Your task to perform on an android device: check battery use Image 0: 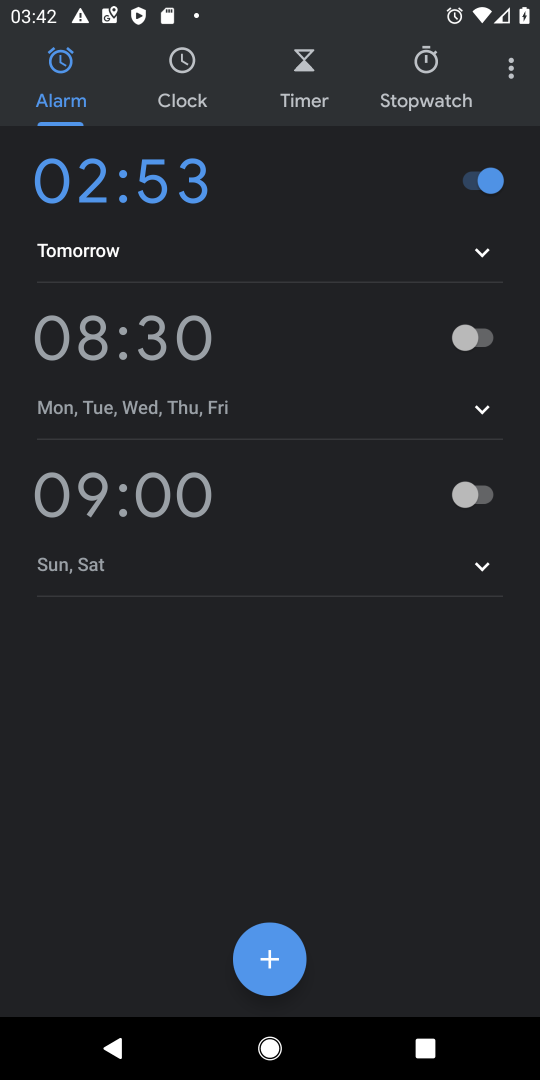
Step 0: press home button
Your task to perform on an android device: check battery use Image 1: 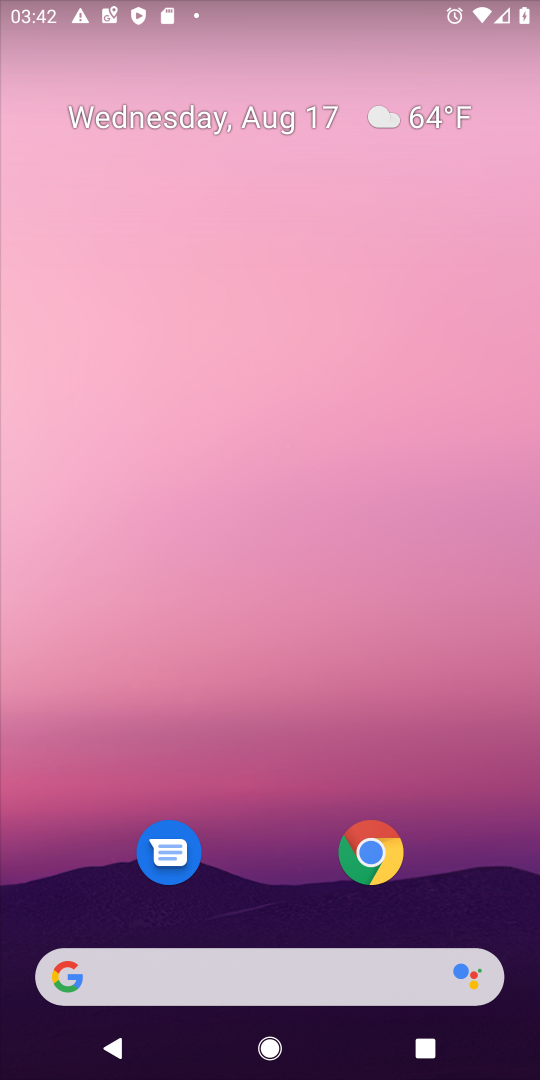
Step 1: drag from (284, 875) to (398, 140)
Your task to perform on an android device: check battery use Image 2: 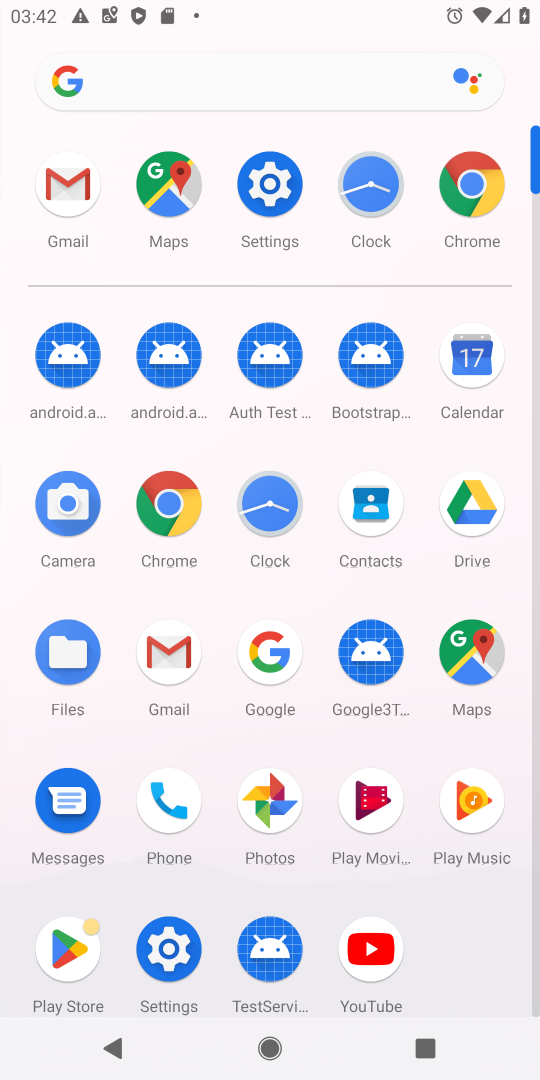
Step 2: click (169, 955)
Your task to perform on an android device: check battery use Image 3: 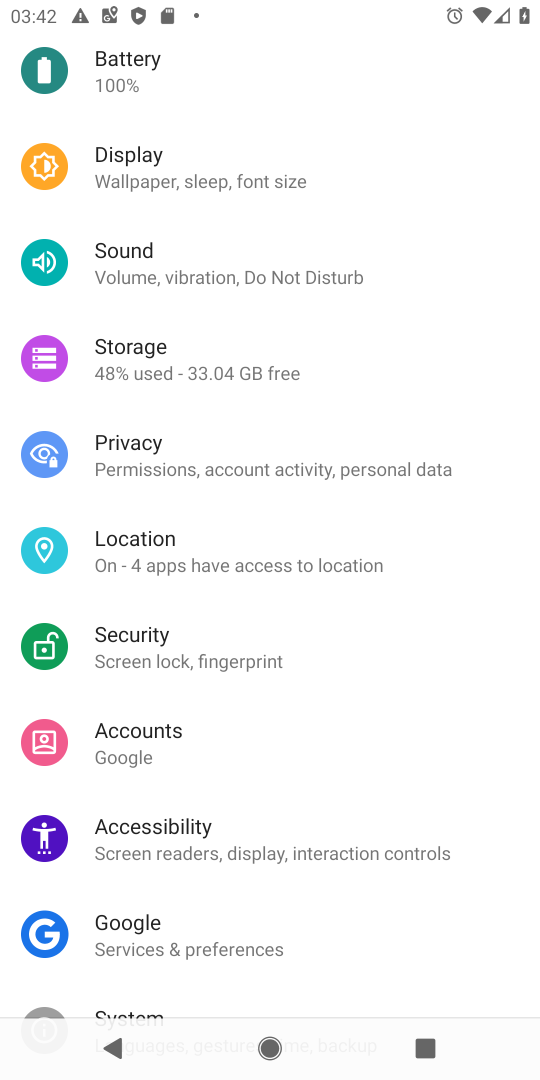
Step 3: drag from (228, 824) to (364, 880)
Your task to perform on an android device: check battery use Image 4: 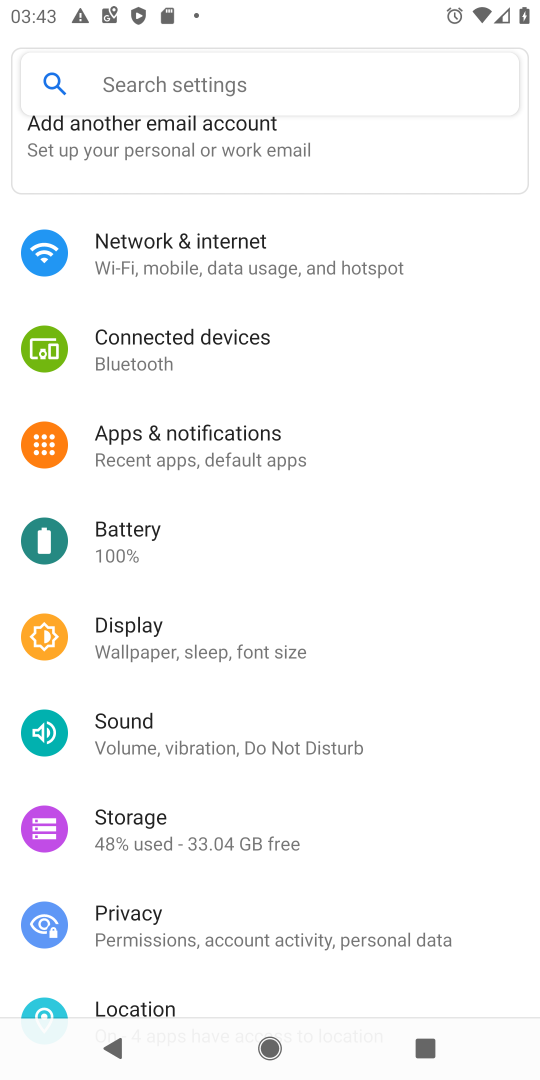
Step 4: drag from (354, 842) to (411, 328)
Your task to perform on an android device: check battery use Image 5: 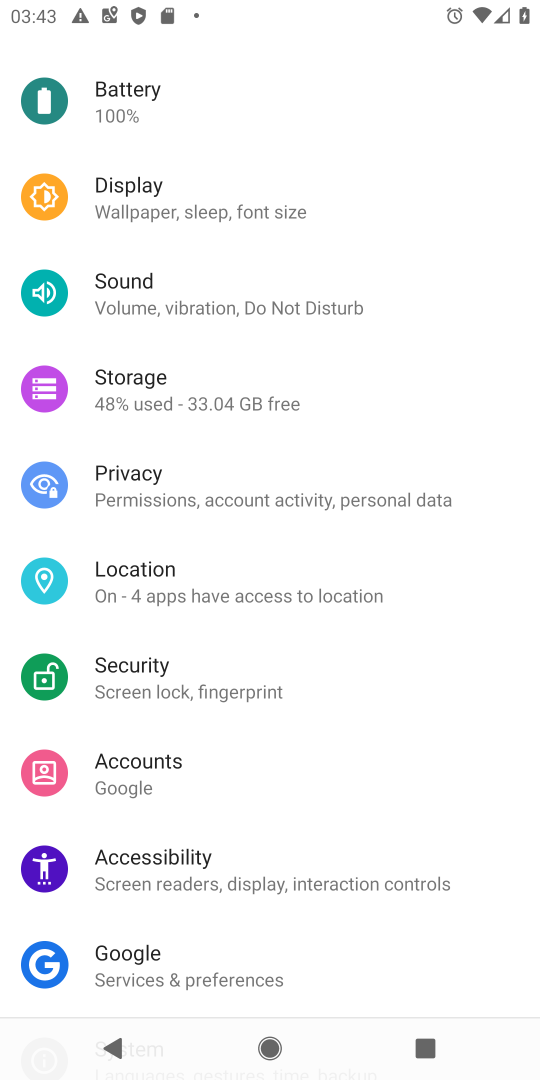
Step 5: drag from (274, 805) to (247, 919)
Your task to perform on an android device: check battery use Image 6: 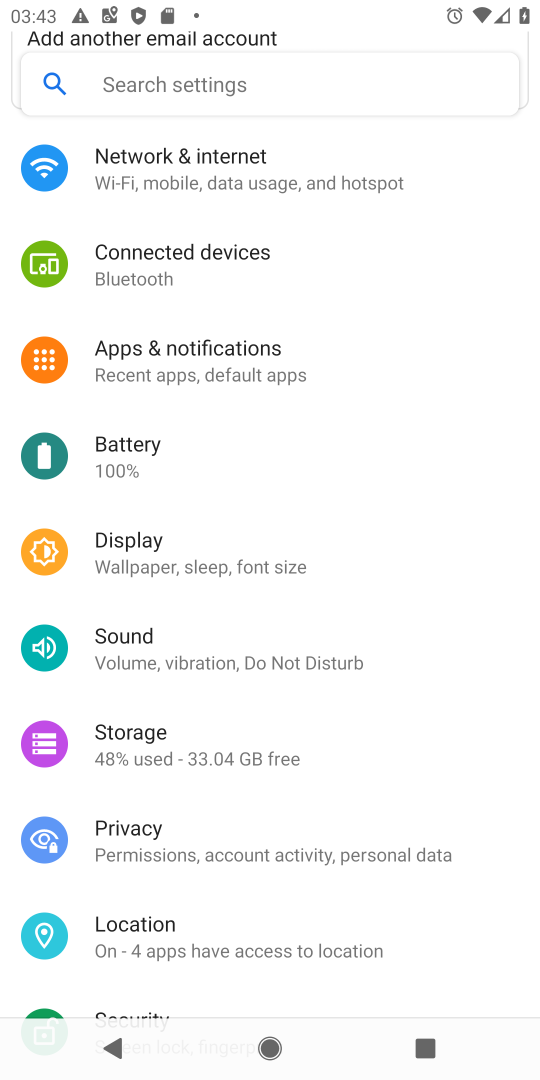
Step 6: drag from (339, 267) to (293, 545)
Your task to perform on an android device: check battery use Image 7: 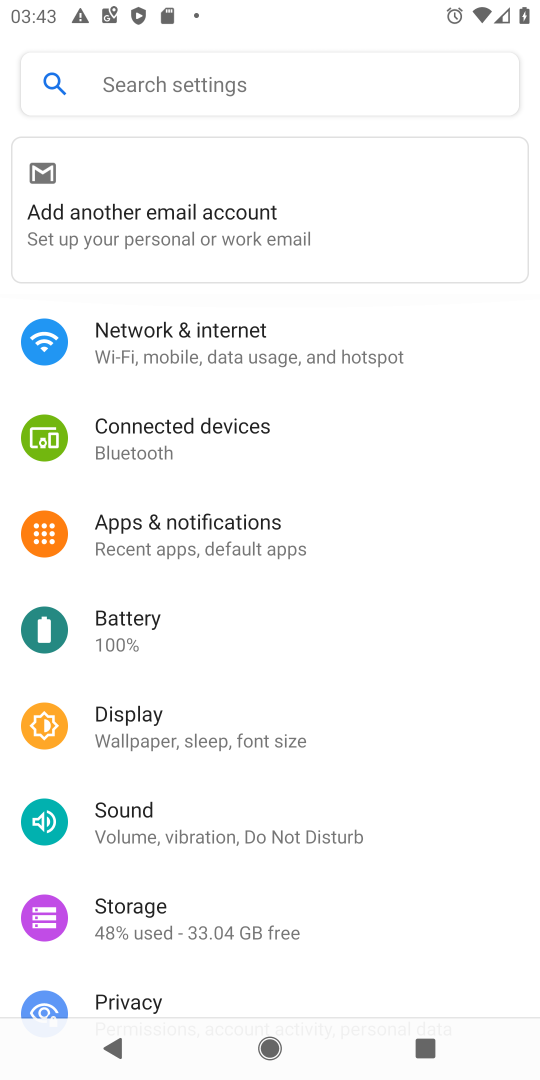
Step 7: click (104, 643)
Your task to perform on an android device: check battery use Image 8: 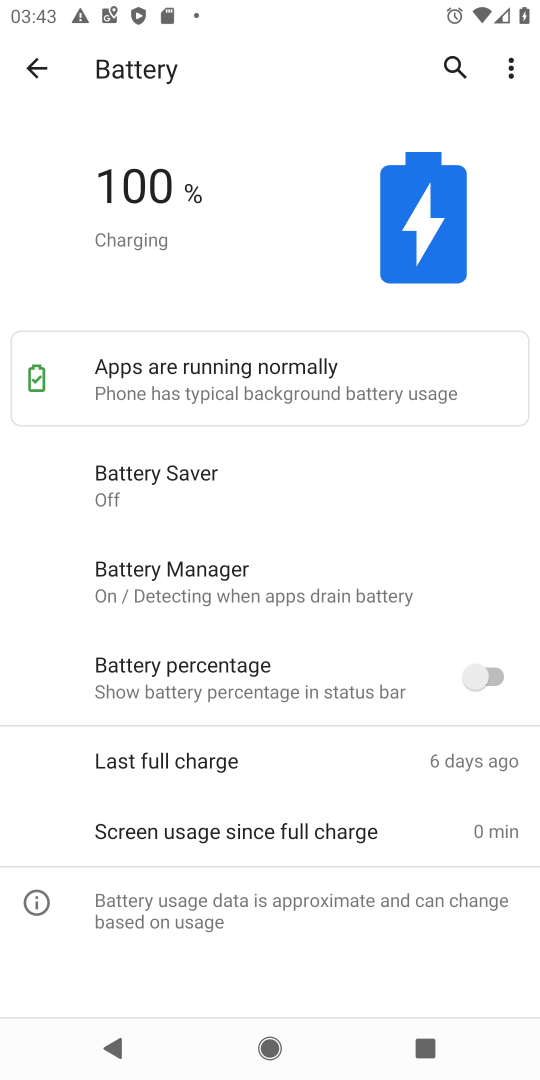
Step 8: click (522, 60)
Your task to perform on an android device: check battery use Image 9: 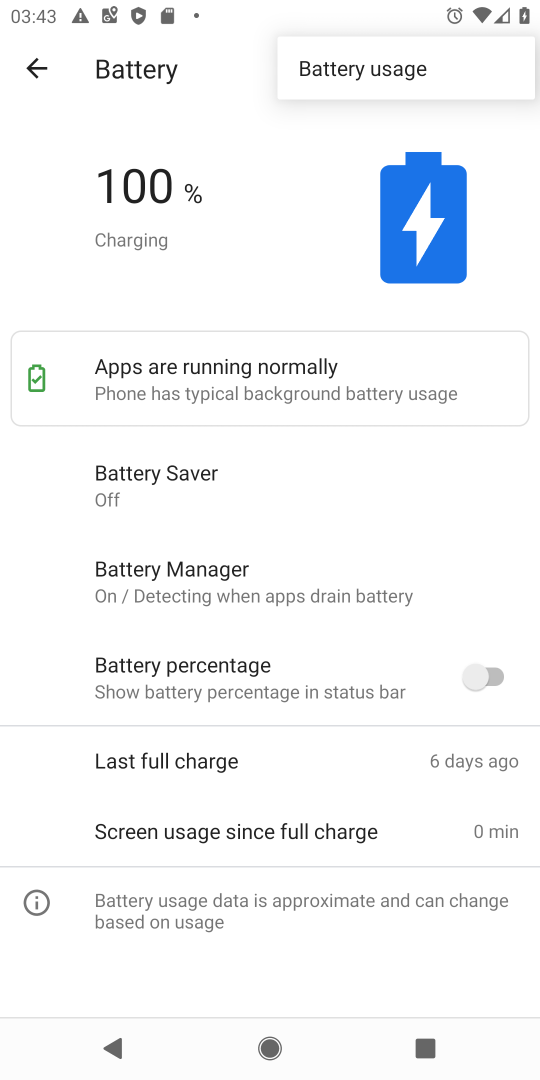
Step 9: click (416, 57)
Your task to perform on an android device: check battery use Image 10: 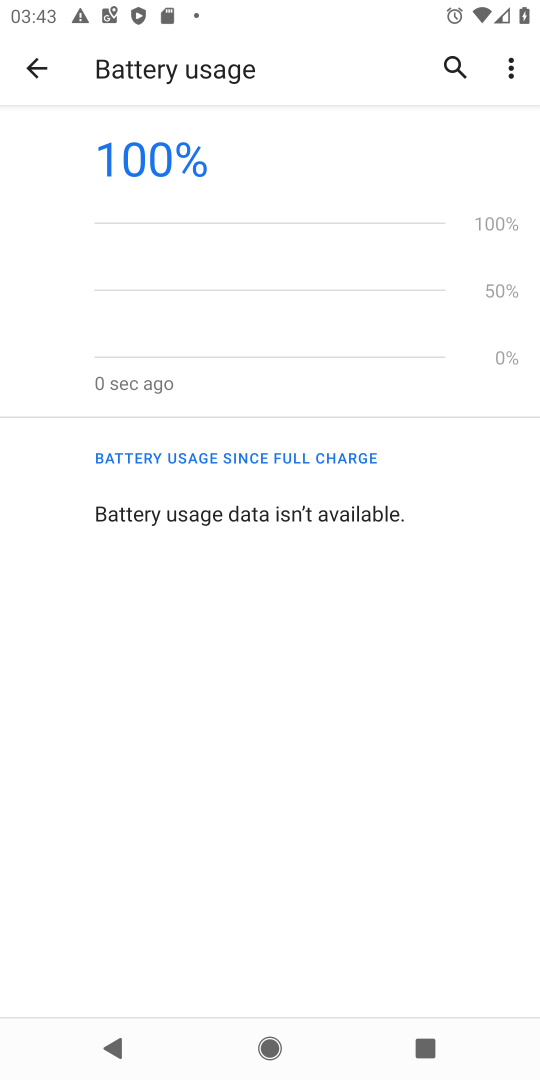
Step 10: task complete